Your task to perform on an android device: Go to notification settings Image 0: 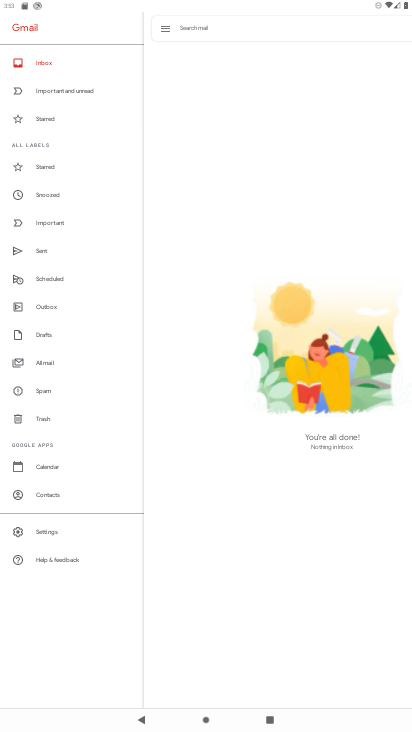
Step 0: press home button
Your task to perform on an android device: Go to notification settings Image 1: 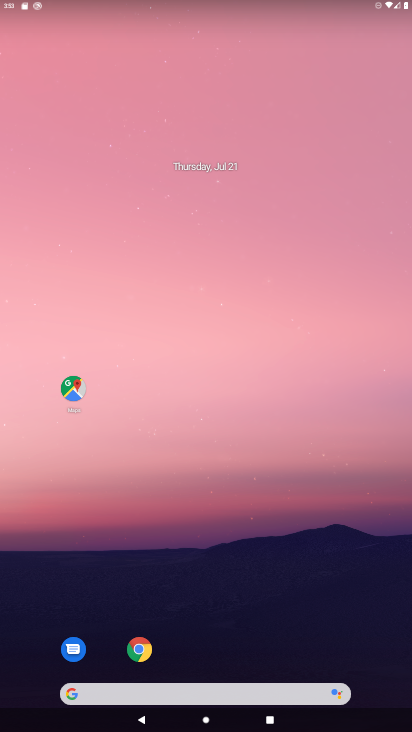
Step 1: drag from (201, 609) to (208, 156)
Your task to perform on an android device: Go to notification settings Image 2: 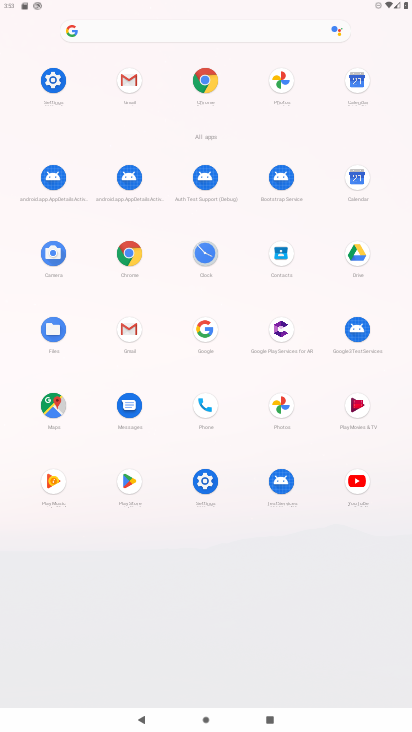
Step 2: click (204, 486)
Your task to perform on an android device: Go to notification settings Image 3: 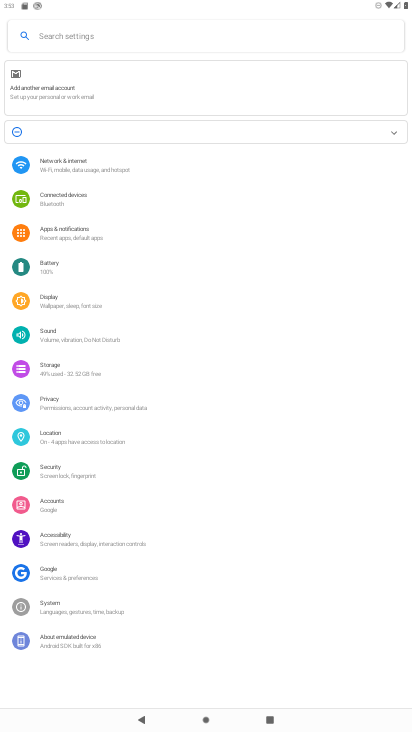
Step 3: click (94, 237)
Your task to perform on an android device: Go to notification settings Image 4: 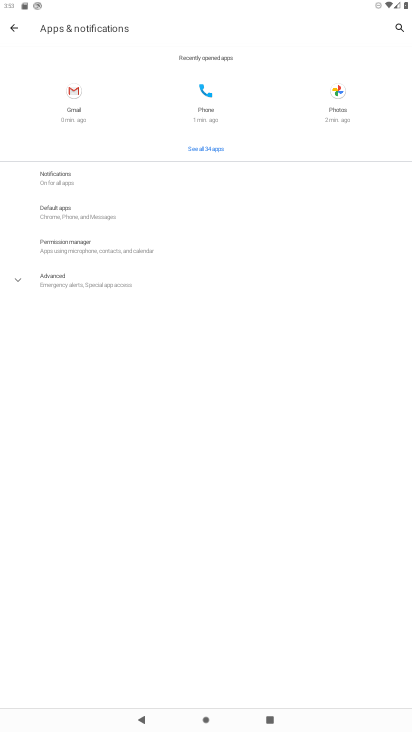
Step 4: click (61, 181)
Your task to perform on an android device: Go to notification settings Image 5: 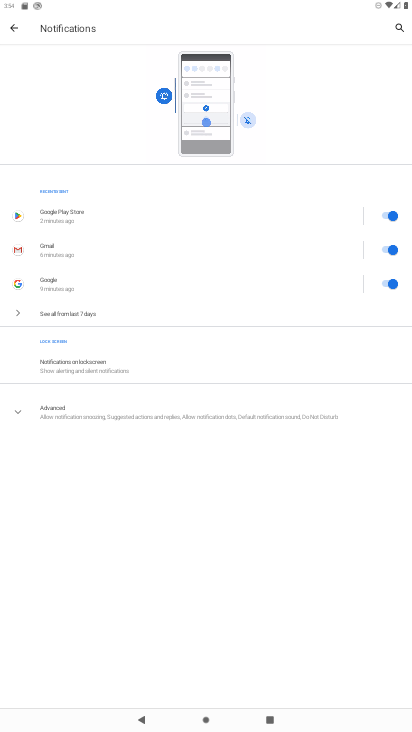
Step 5: task complete